Your task to perform on an android device: check out phone information Image 0: 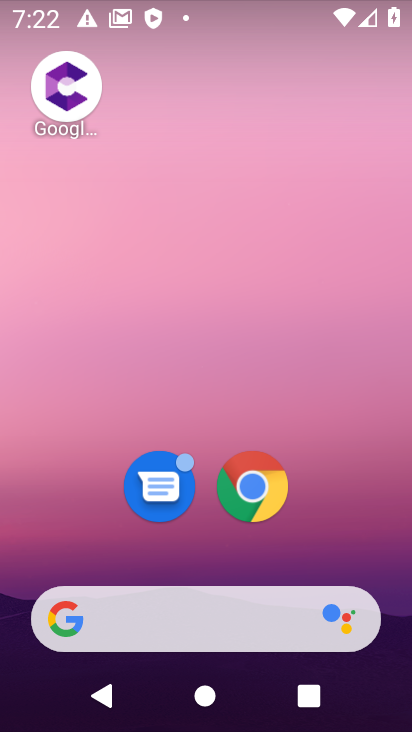
Step 0: drag from (181, 612) to (81, 1)
Your task to perform on an android device: check out phone information Image 1: 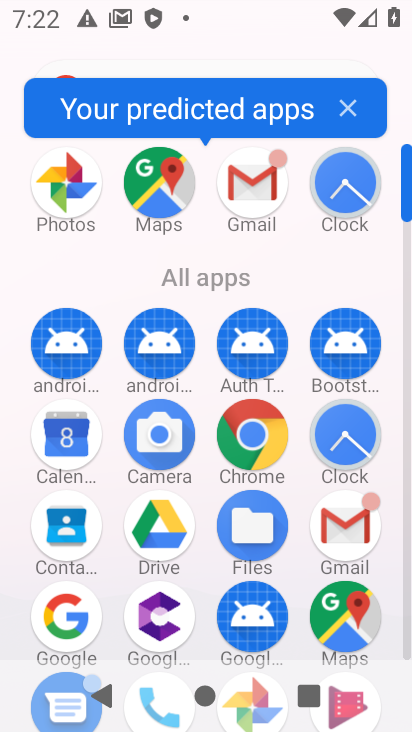
Step 1: drag from (209, 623) to (239, 67)
Your task to perform on an android device: check out phone information Image 2: 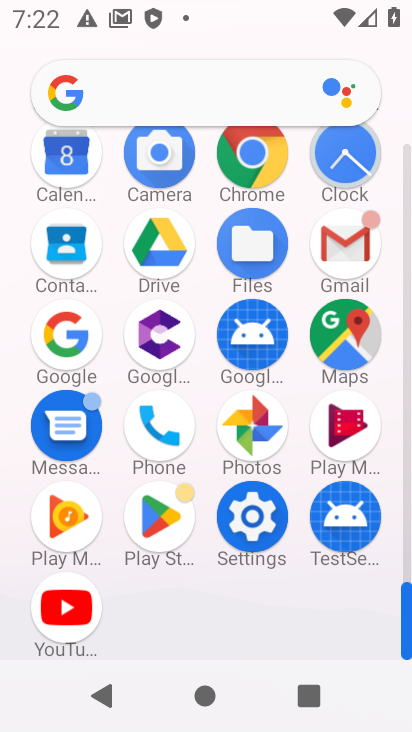
Step 2: click (263, 517)
Your task to perform on an android device: check out phone information Image 3: 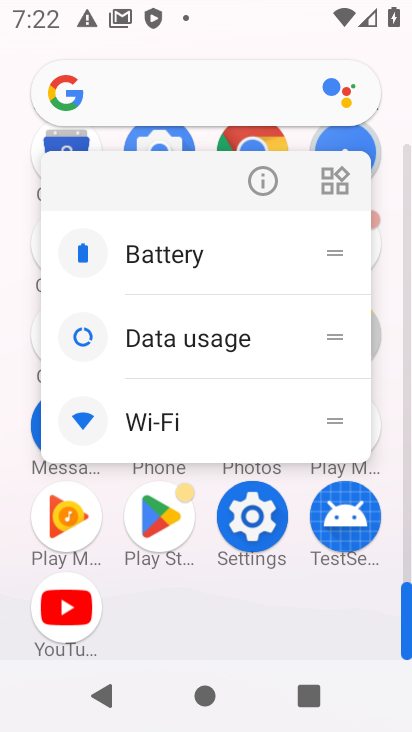
Step 3: click (262, 515)
Your task to perform on an android device: check out phone information Image 4: 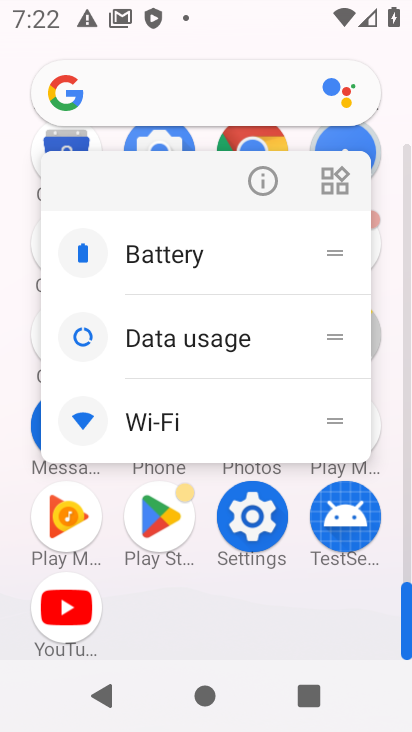
Step 4: click (251, 522)
Your task to perform on an android device: check out phone information Image 5: 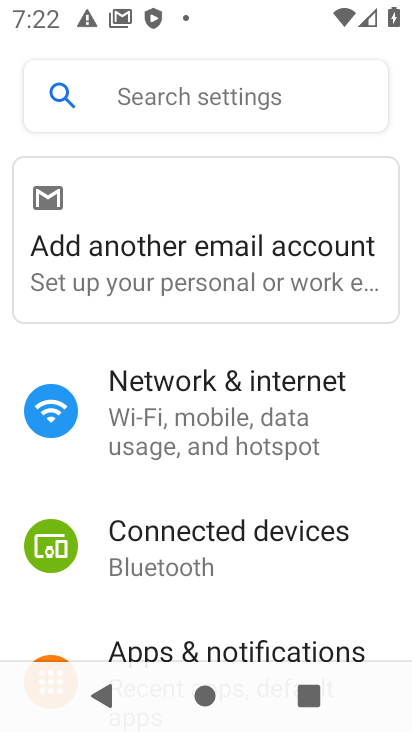
Step 5: drag from (197, 658) to (116, 200)
Your task to perform on an android device: check out phone information Image 6: 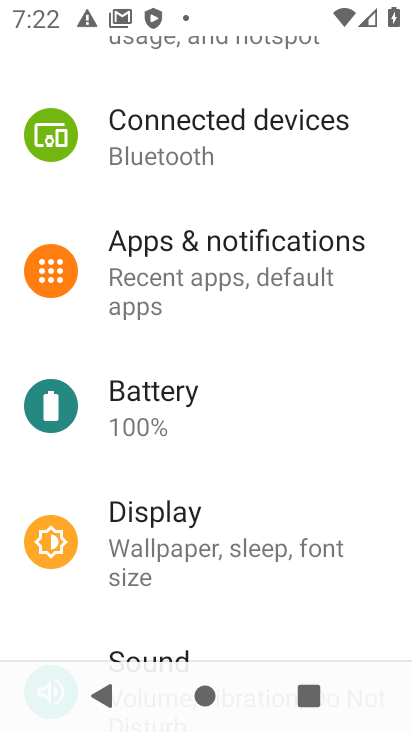
Step 6: drag from (68, 648) to (193, 120)
Your task to perform on an android device: check out phone information Image 7: 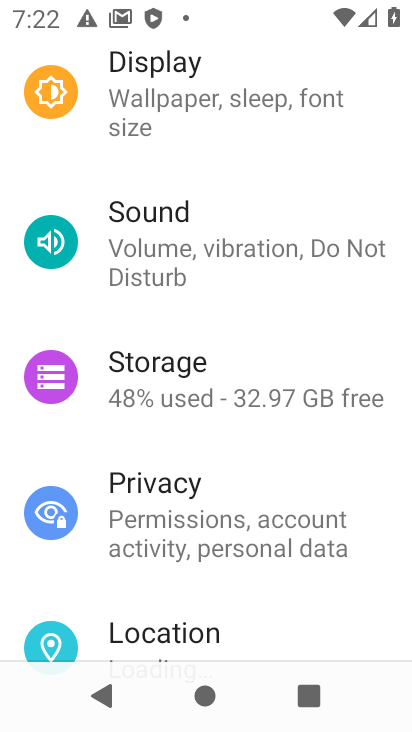
Step 7: drag from (123, 681) to (98, 179)
Your task to perform on an android device: check out phone information Image 8: 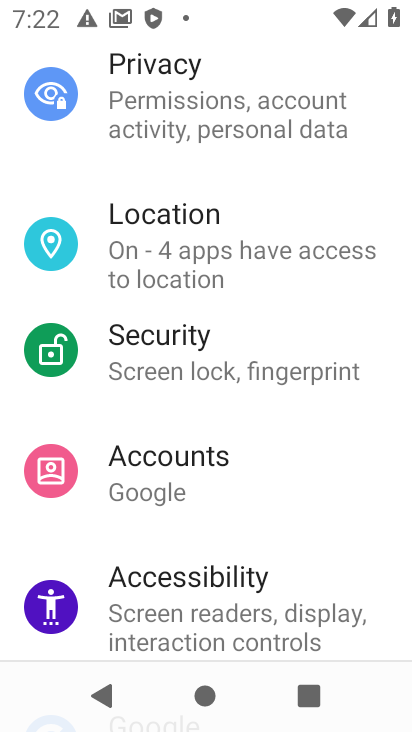
Step 8: drag from (78, 658) to (111, 153)
Your task to perform on an android device: check out phone information Image 9: 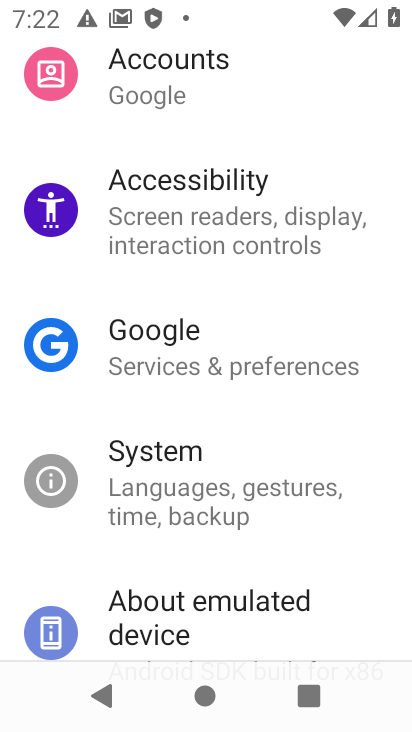
Step 9: drag from (65, 674) to (112, 208)
Your task to perform on an android device: check out phone information Image 10: 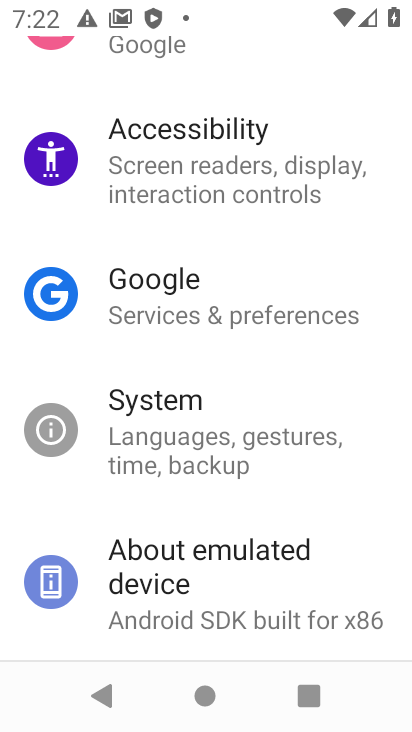
Step 10: click (202, 469)
Your task to perform on an android device: check out phone information Image 11: 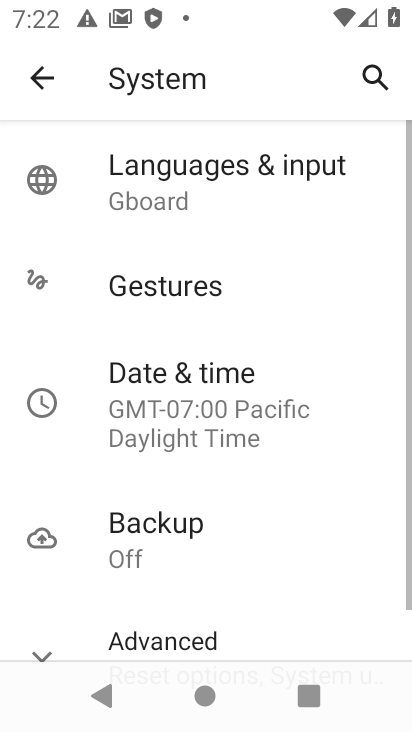
Step 11: task complete